Your task to perform on an android device: Go to internet settings Image 0: 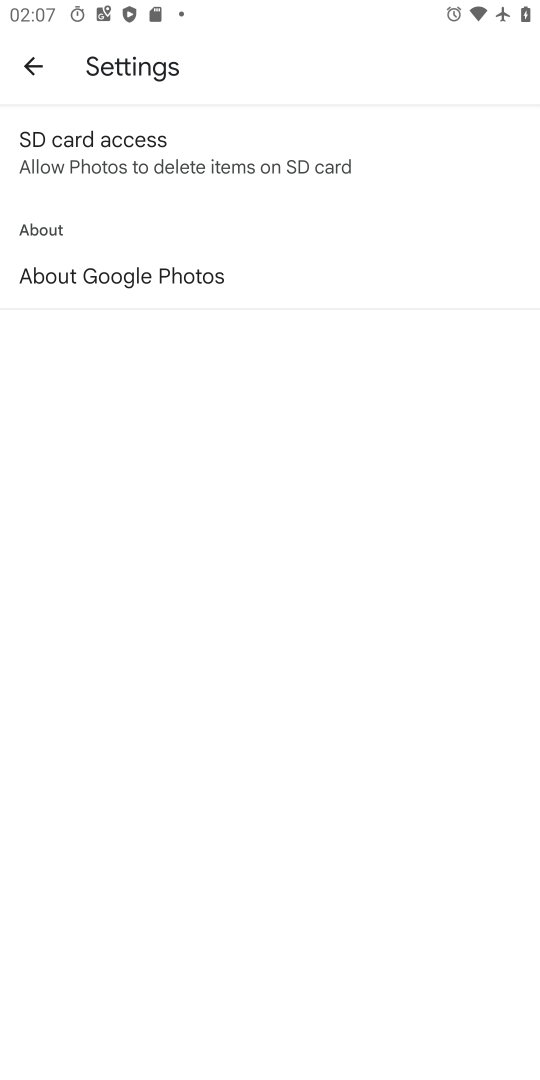
Step 0: press home button
Your task to perform on an android device: Go to internet settings Image 1: 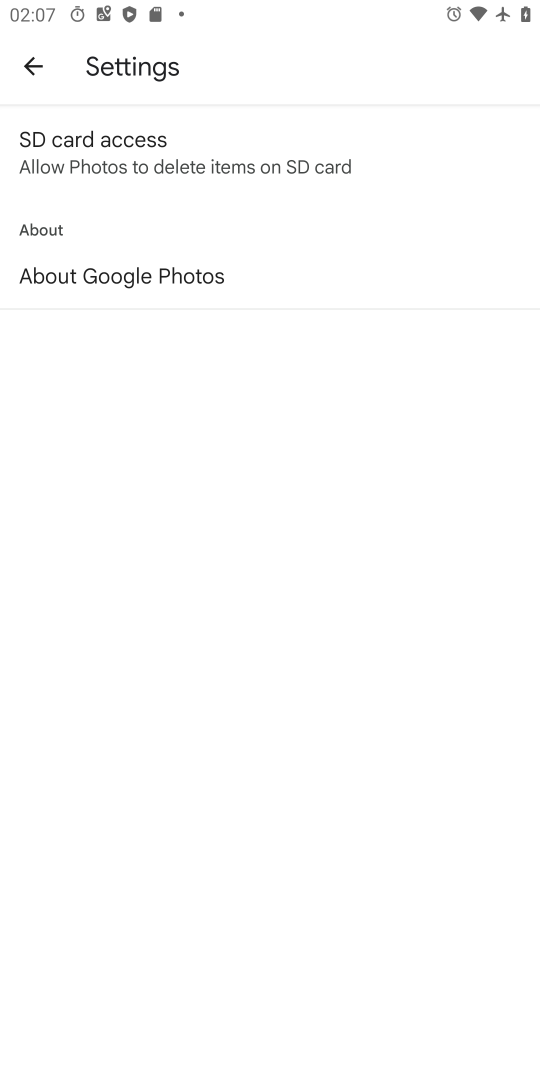
Step 1: press home button
Your task to perform on an android device: Go to internet settings Image 2: 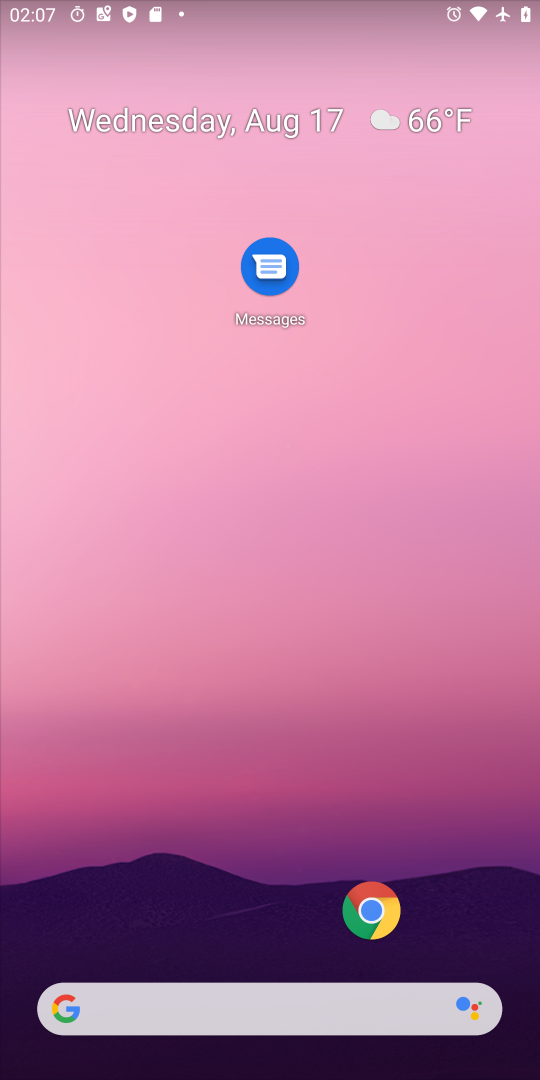
Step 2: drag from (185, 804) to (240, 123)
Your task to perform on an android device: Go to internet settings Image 3: 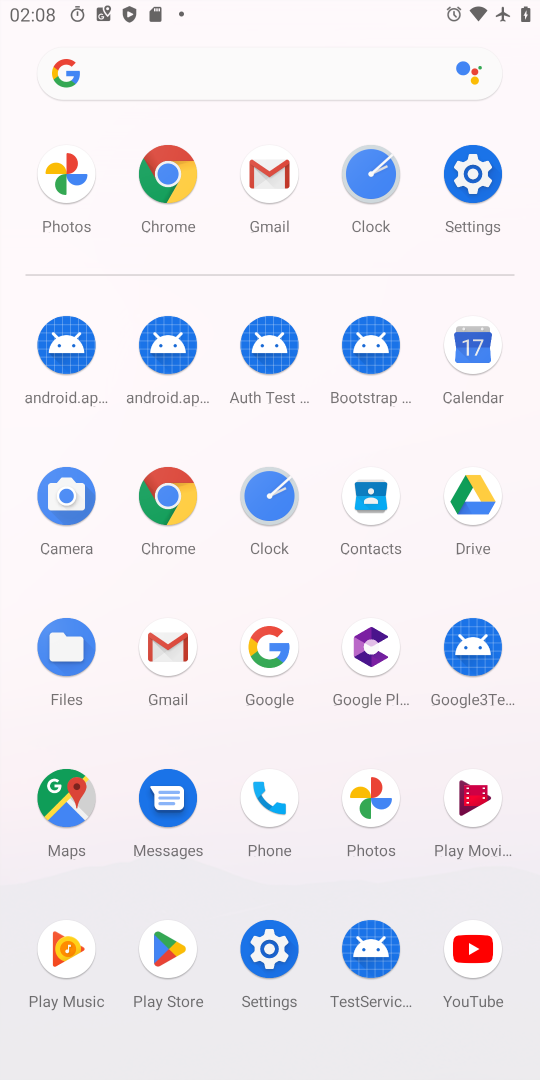
Step 3: click (271, 938)
Your task to perform on an android device: Go to internet settings Image 4: 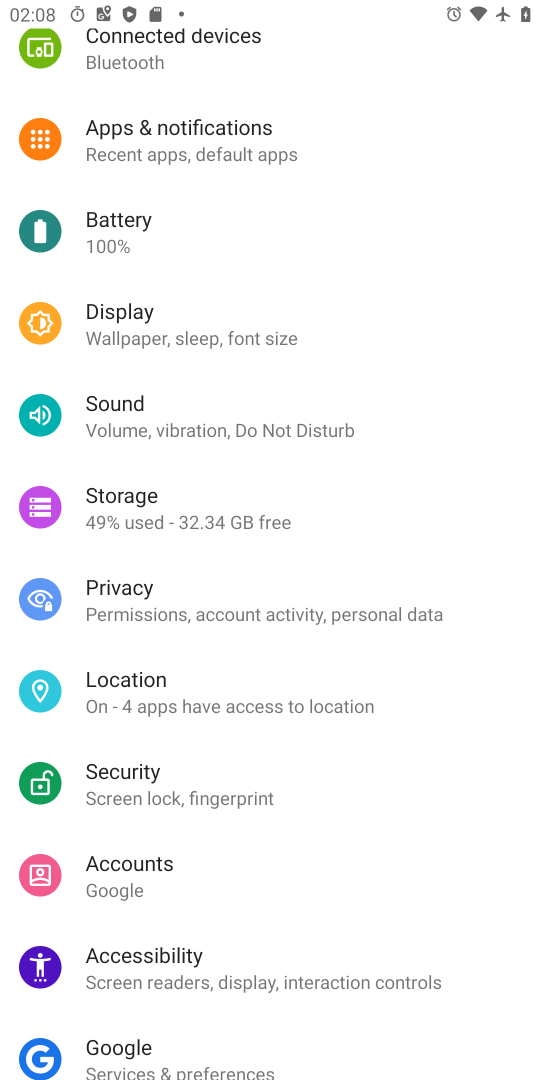
Step 4: drag from (317, 246) to (265, 853)
Your task to perform on an android device: Go to internet settings Image 5: 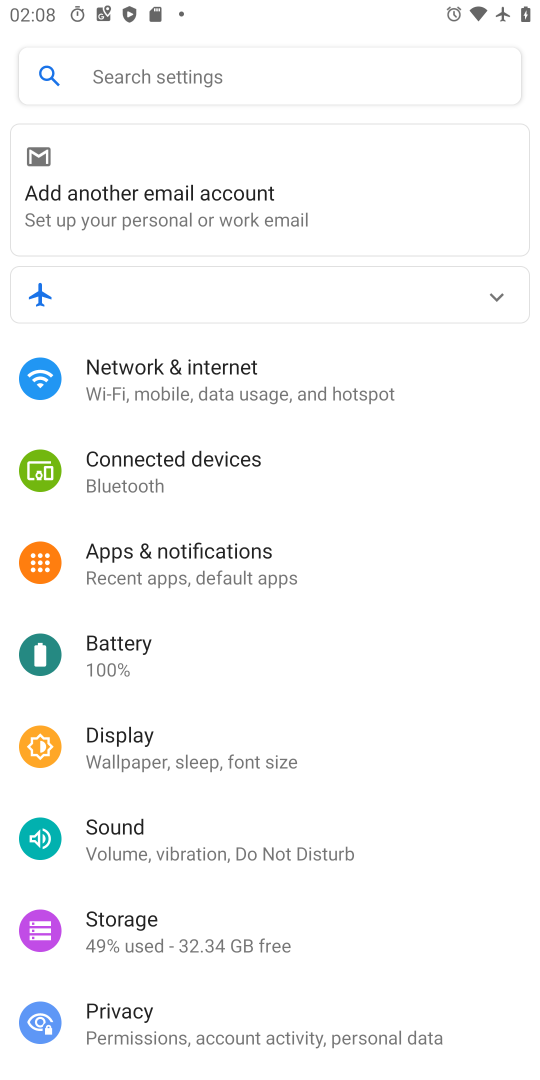
Step 5: click (192, 388)
Your task to perform on an android device: Go to internet settings Image 6: 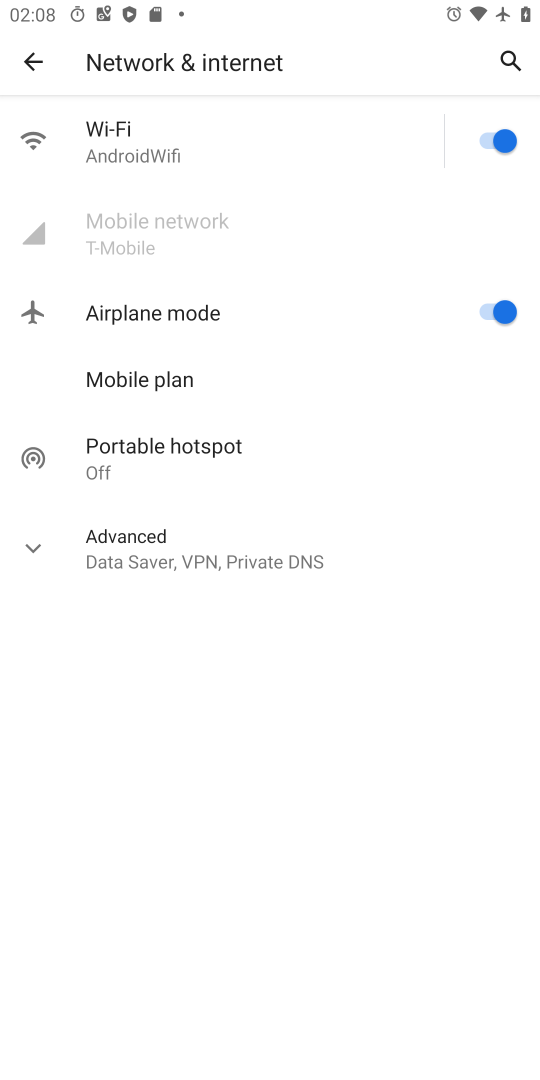
Step 6: task complete